Your task to perform on an android device: turn on javascript in the chrome app Image 0: 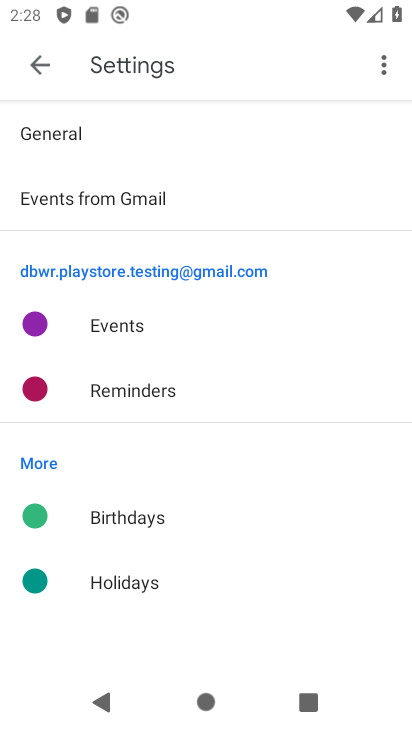
Step 0: press back button
Your task to perform on an android device: turn on javascript in the chrome app Image 1: 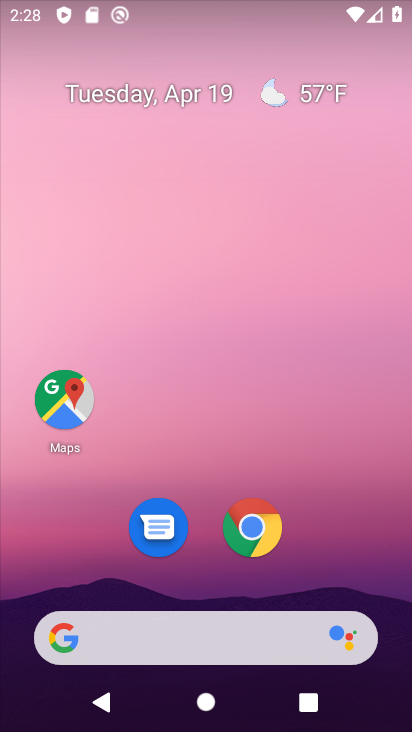
Step 1: click (255, 520)
Your task to perform on an android device: turn on javascript in the chrome app Image 2: 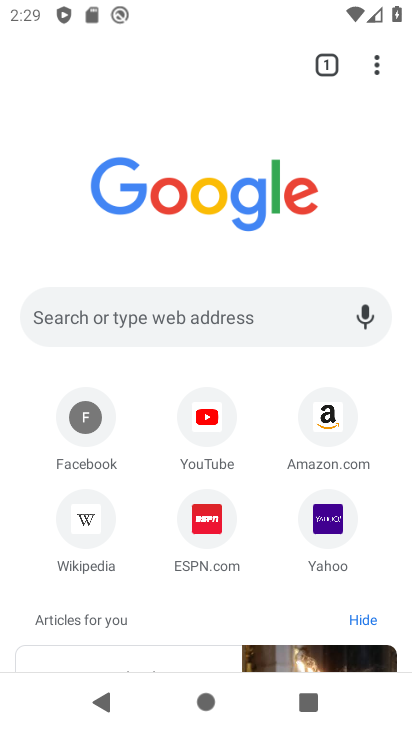
Step 2: click (372, 62)
Your task to perform on an android device: turn on javascript in the chrome app Image 3: 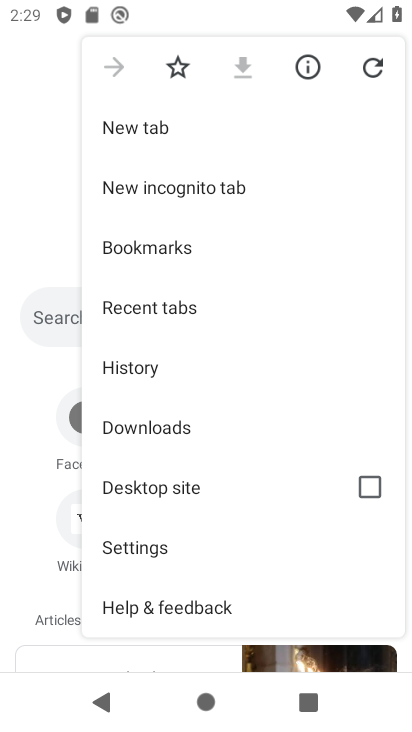
Step 3: click (225, 540)
Your task to perform on an android device: turn on javascript in the chrome app Image 4: 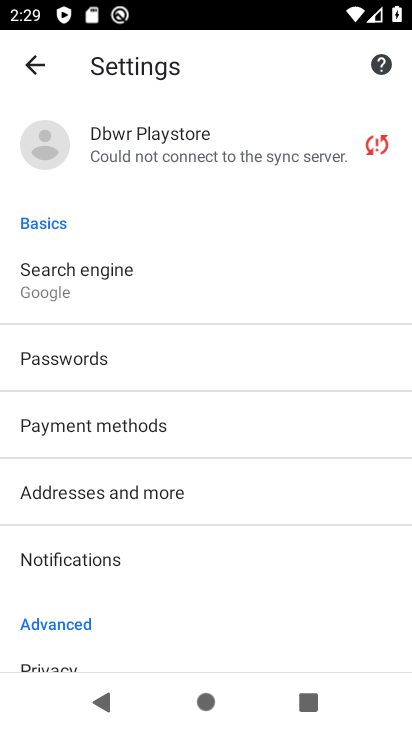
Step 4: drag from (225, 537) to (268, 392)
Your task to perform on an android device: turn on javascript in the chrome app Image 5: 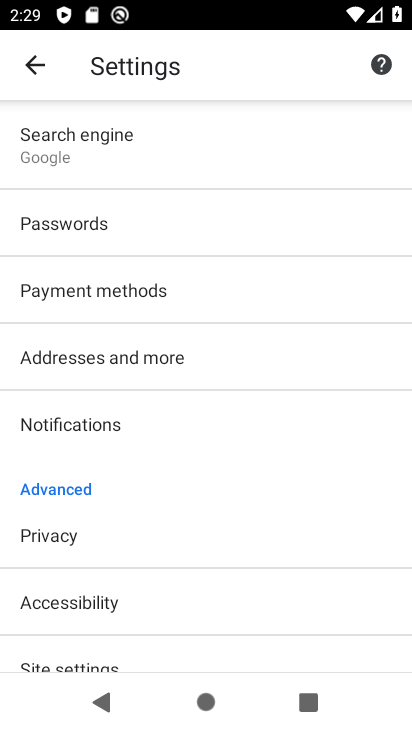
Step 5: drag from (234, 614) to (252, 521)
Your task to perform on an android device: turn on javascript in the chrome app Image 6: 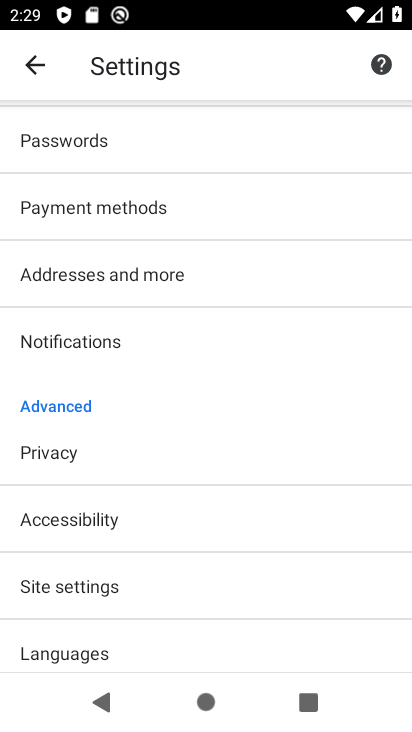
Step 6: click (220, 588)
Your task to perform on an android device: turn on javascript in the chrome app Image 7: 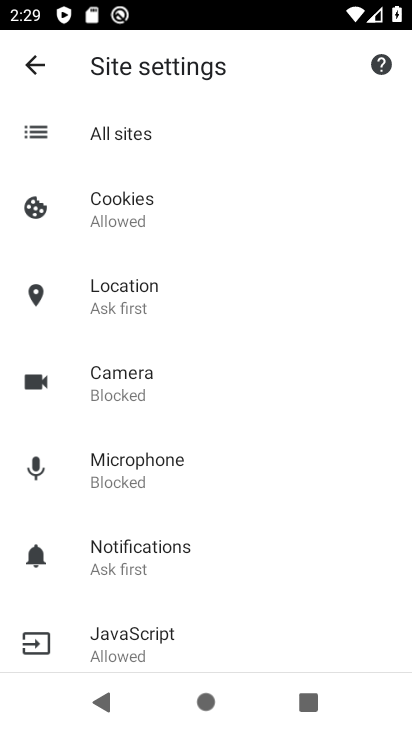
Step 7: click (275, 644)
Your task to perform on an android device: turn on javascript in the chrome app Image 8: 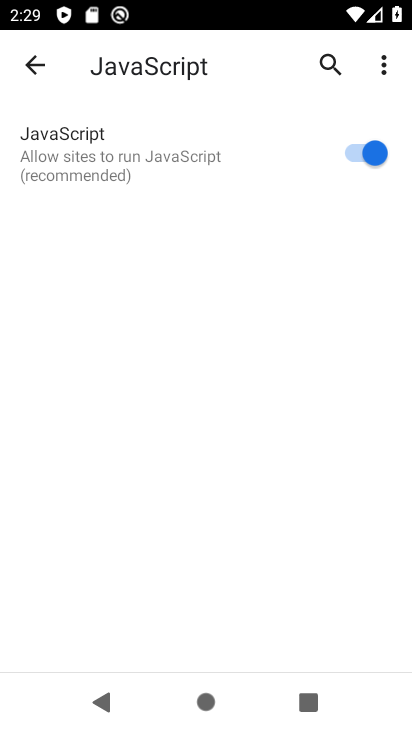
Step 8: task complete